Your task to perform on an android device: turn vacation reply on in the gmail app Image 0: 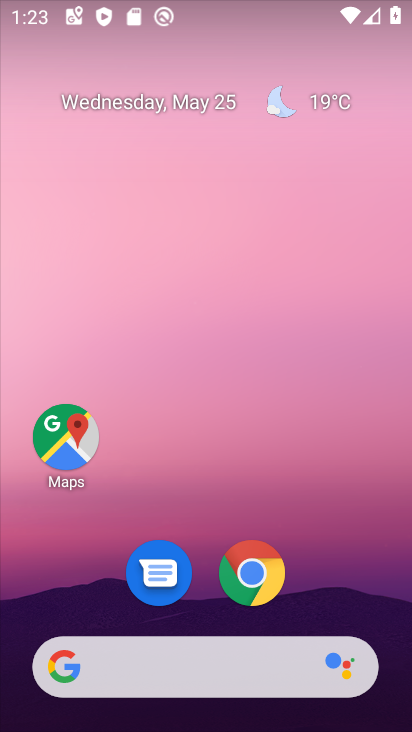
Step 0: drag from (380, 608) to (369, 81)
Your task to perform on an android device: turn vacation reply on in the gmail app Image 1: 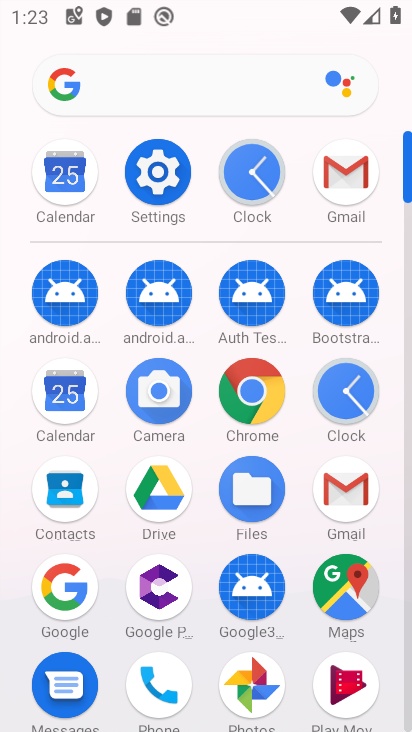
Step 1: click (406, 694)
Your task to perform on an android device: turn vacation reply on in the gmail app Image 2: 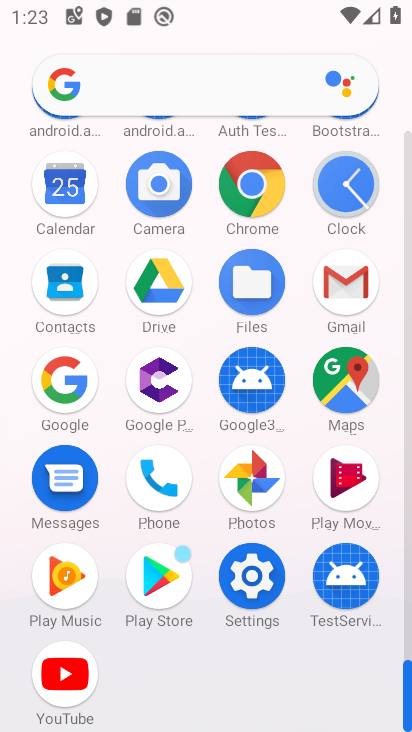
Step 2: click (346, 281)
Your task to perform on an android device: turn vacation reply on in the gmail app Image 3: 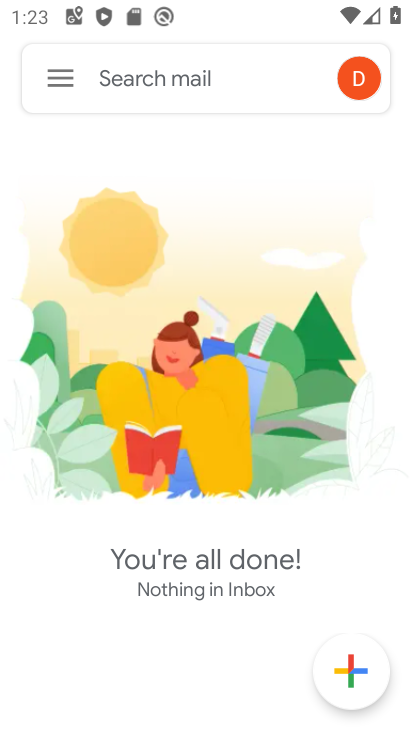
Step 3: click (60, 79)
Your task to perform on an android device: turn vacation reply on in the gmail app Image 4: 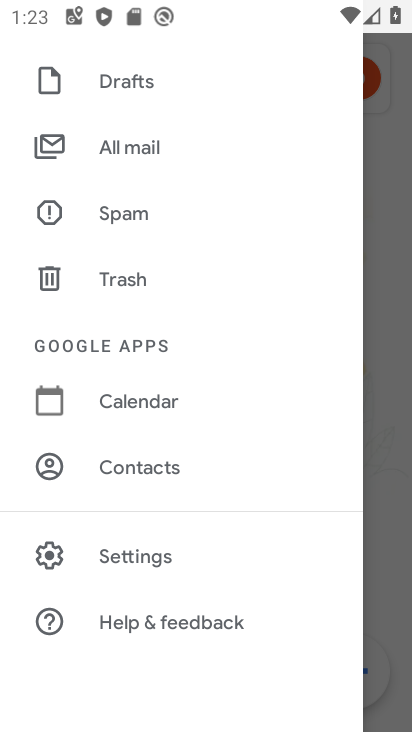
Step 4: click (111, 546)
Your task to perform on an android device: turn vacation reply on in the gmail app Image 5: 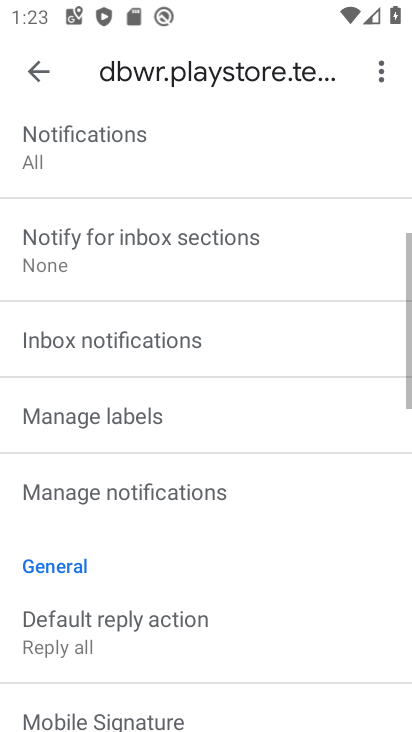
Step 5: task complete